Your task to perform on an android device: turn off data saver in the chrome app Image 0: 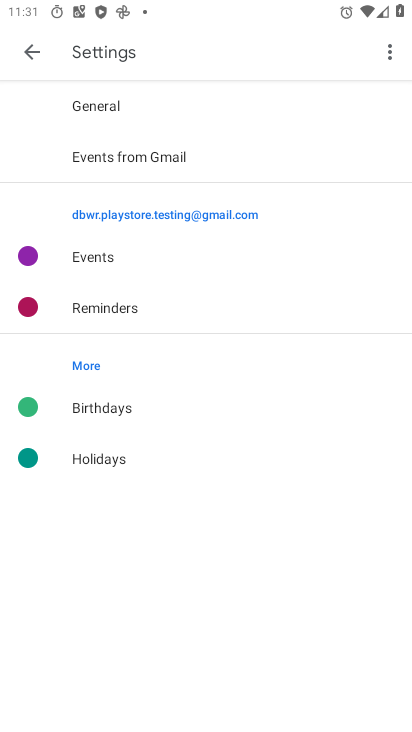
Step 0: press home button
Your task to perform on an android device: turn off data saver in the chrome app Image 1: 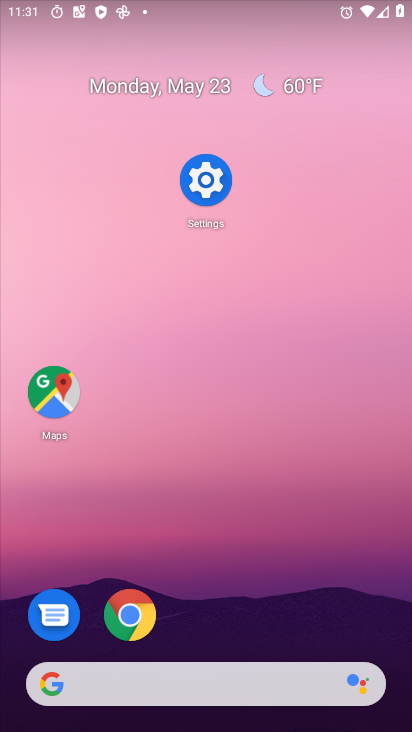
Step 1: click (132, 616)
Your task to perform on an android device: turn off data saver in the chrome app Image 2: 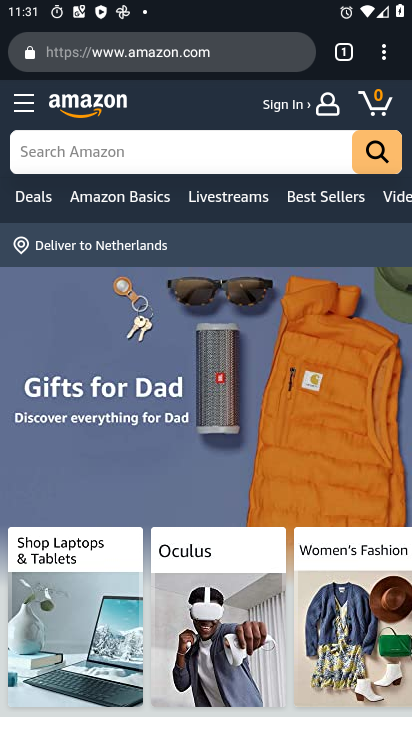
Step 2: click (379, 54)
Your task to perform on an android device: turn off data saver in the chrome app Image 3: 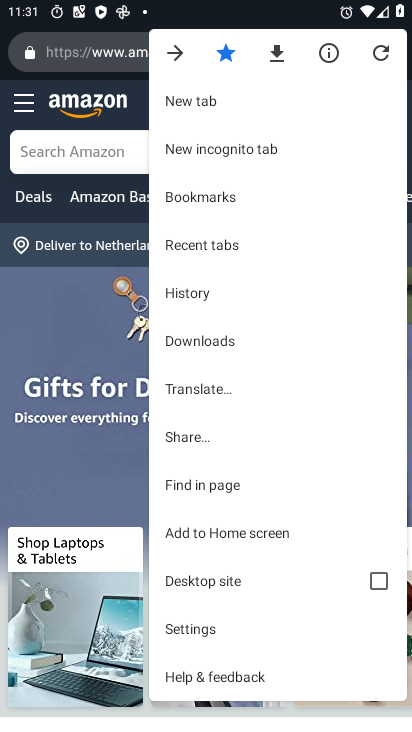
Step 3: click (246, 631)
Your task to perform on an android device: turn off data saver in the chrome app Image 4: 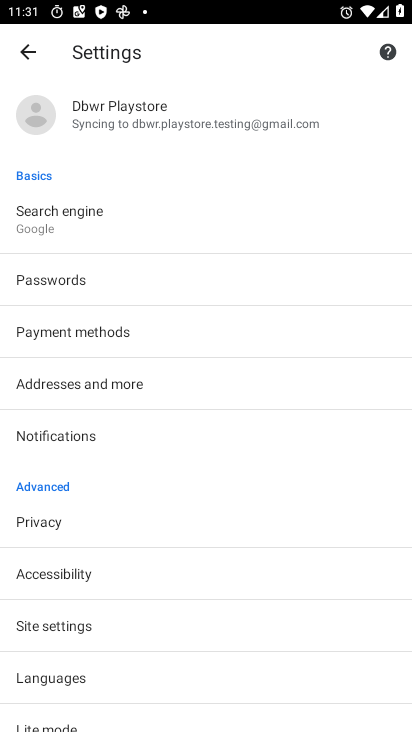
Step 4: drag from (179, 662) to (197, 299)
Your task to perform on an android device: turn off data saver in the chrome app Image 5: 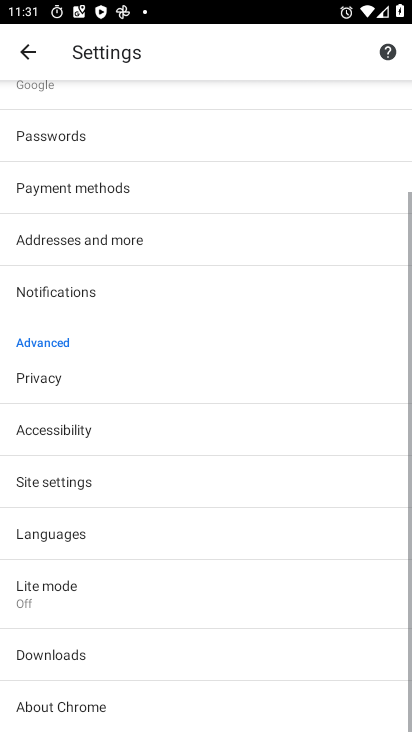
Step 5: click (60, 599)
Your task to perform on an android device: turn off data saver in the chrome app Image 6: 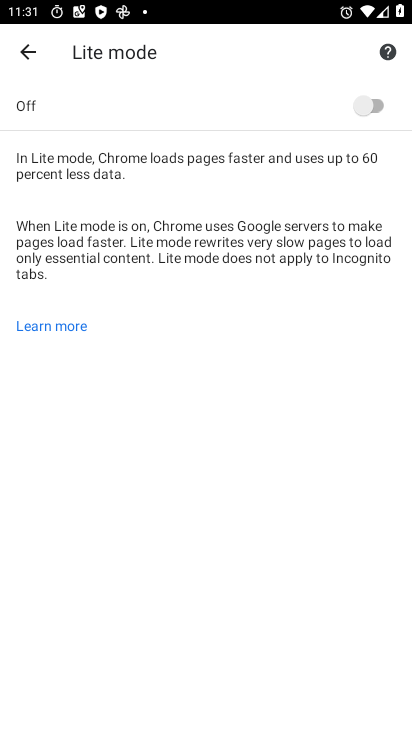
Step 6: task complete